Your task to perform on an android device: read, delete, or share a saved page in the chrome app Image 0: 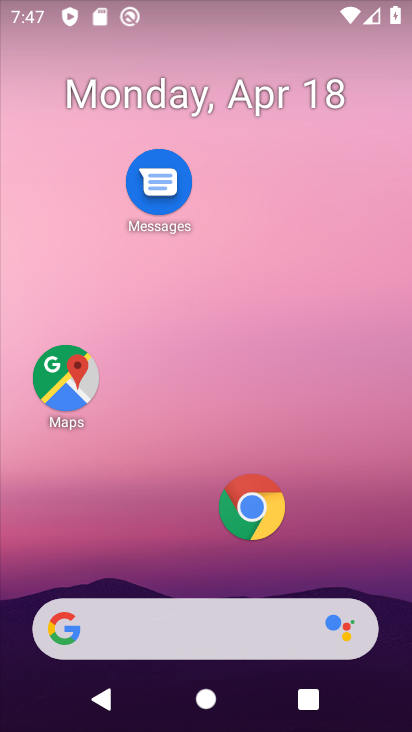
Step 0: click (243, 512)
Your task to perform on an android device: read, delete, or share a saved page in the chrome app Image 1: 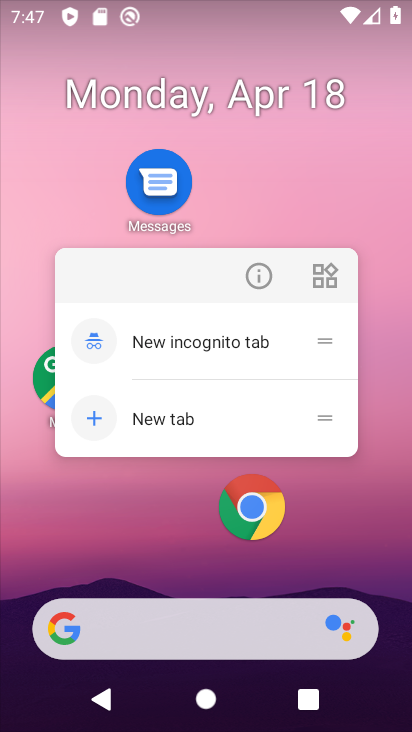
Step 1: click (257, 513)
Your task to perform on an android device: read, delete, or share a saved page in the chrome app Image 2: 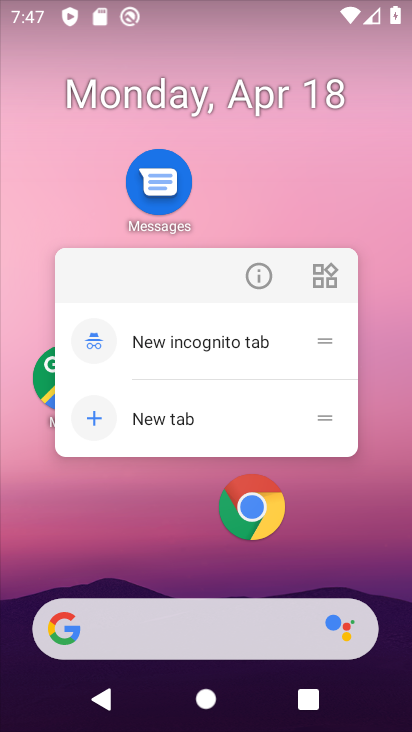
Step 2: click (256, 516)
Your task to perform on an android device: read, delete, or share a saved page in the chrome app Image 3: 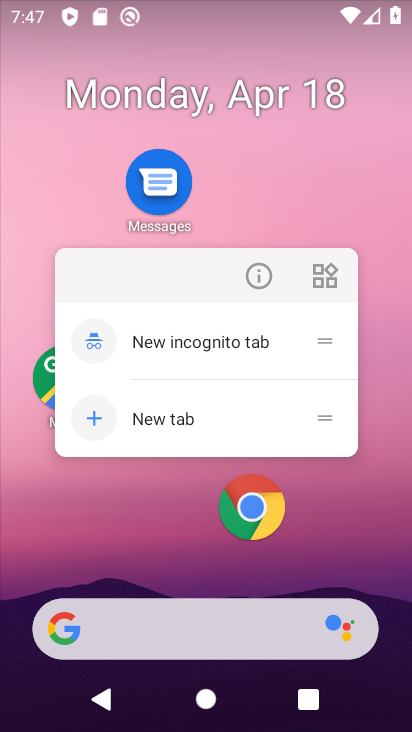
Step 3: click (256, 516)
Your task to perform on an android device: read, delete, or share a saved page in the chrome app Image 4: 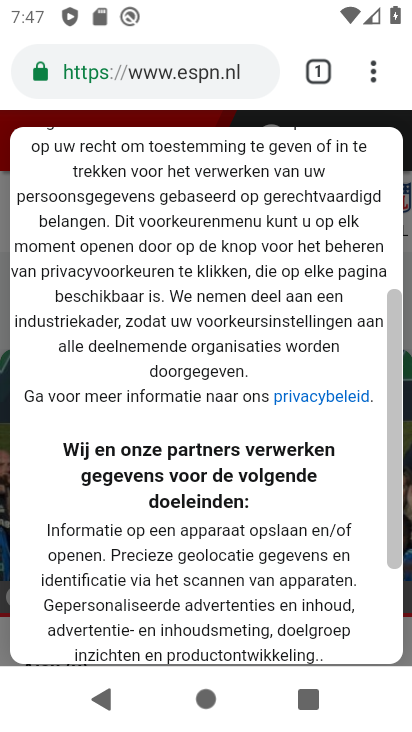
Step 4: click (316, 69)
Your task to perform on an android device: read, delete, or share a saved page in the chrome app Image 5: 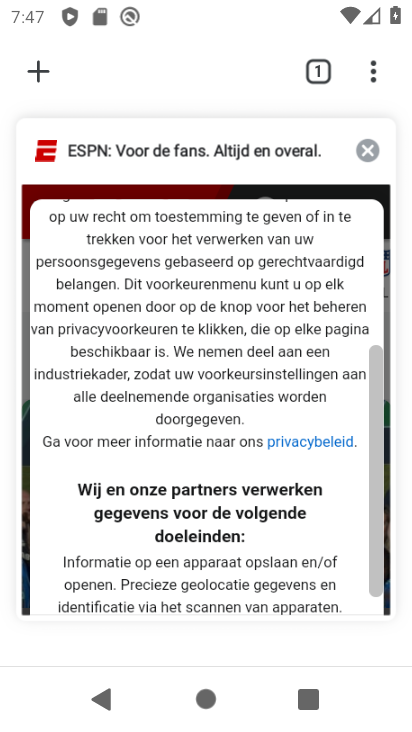
Step 5: click (363, 149)
Your task to perform on an android device: read, delete, or share a saved page in the chrome app Image 6: 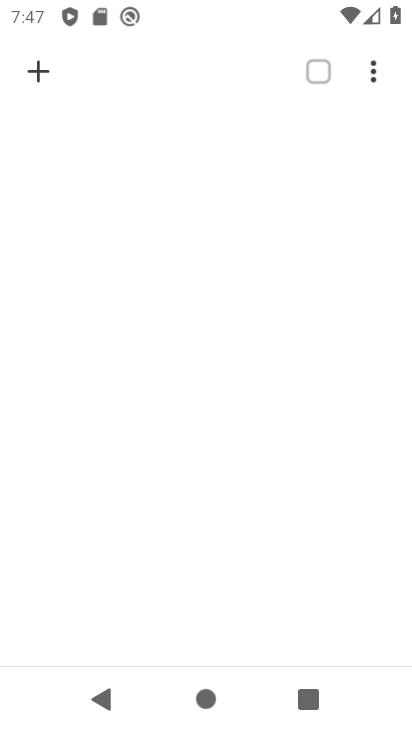
Step 6: click (38, 66)
Your task to perform on an android device: read, delete, or share a saved page in the chrome app Image 7: 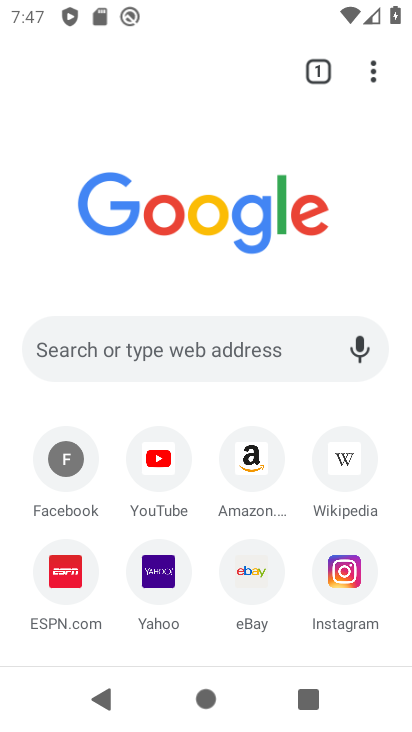
Step 7: click (377, 72)
Your task to perform on an android device: read, delete, or share a saved page in the chrome app Image 8: 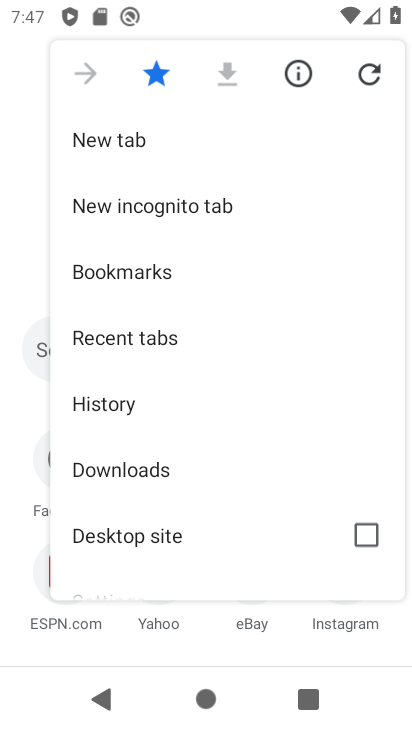
Step 8: click (125, 466)
Your task to perform on an android device: read, delete, or share a saved page in the chrome app Image 9: 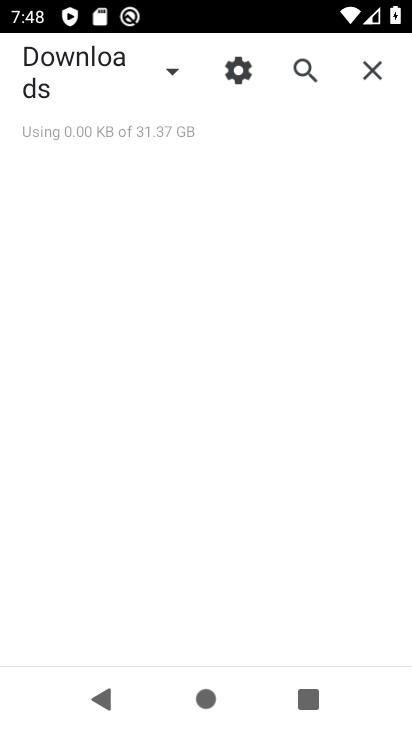
Step 9: click (174, 72)
Your task to perform on an android device: read, delete, or share a saved page in the chrome app Image 10: 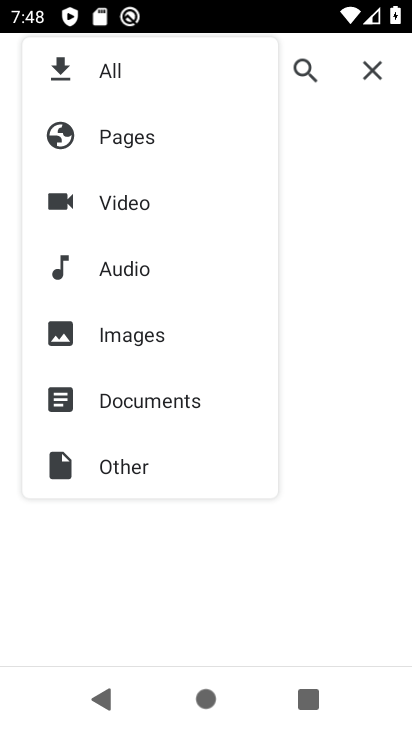
Step 10: click (126, 134)
Your task to perform on an android device: read, delete, or share a saved page in the chrome app Image 11: 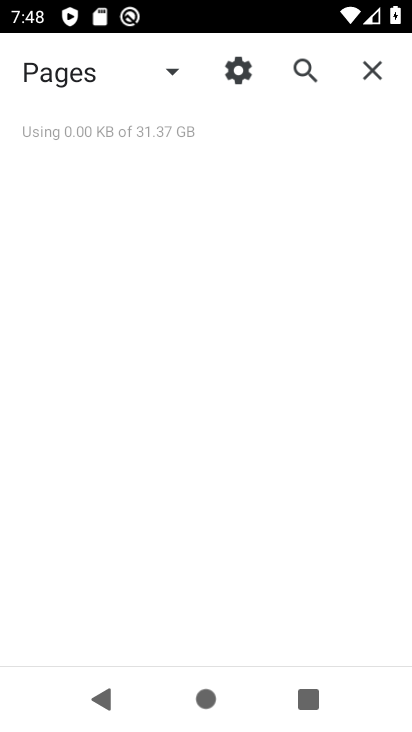
Step 11: task complete